Your task to perform on an android device: Go to battery settings Image 0: 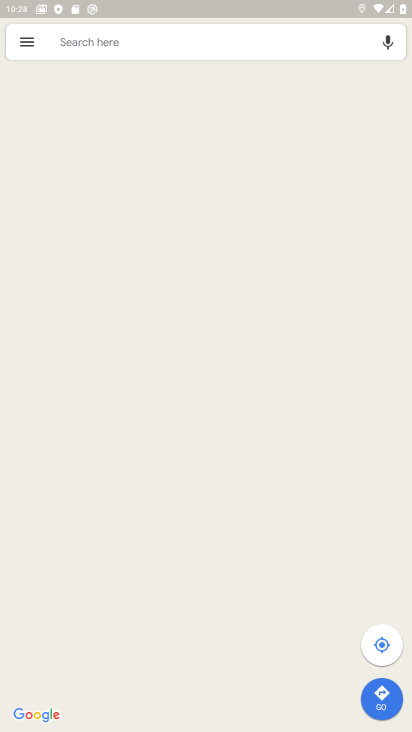
Step 0: press home button
Your task to perform on an android device: Go to battery settings Image 1: 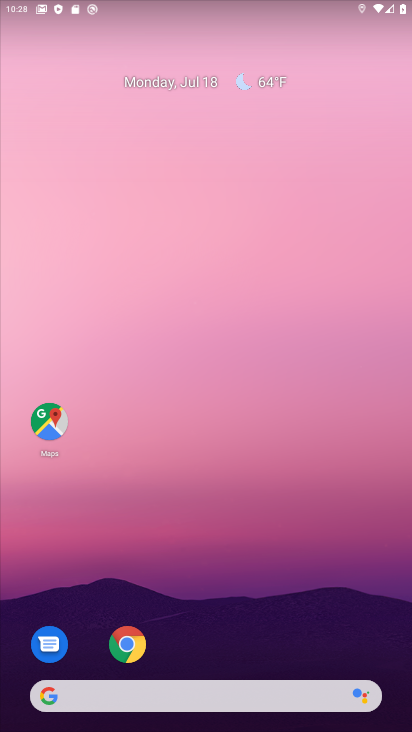
Step 1: drag from (263, 611) to (221, 82)
Your task to perform on an android device: Go to battery settings Image 2: 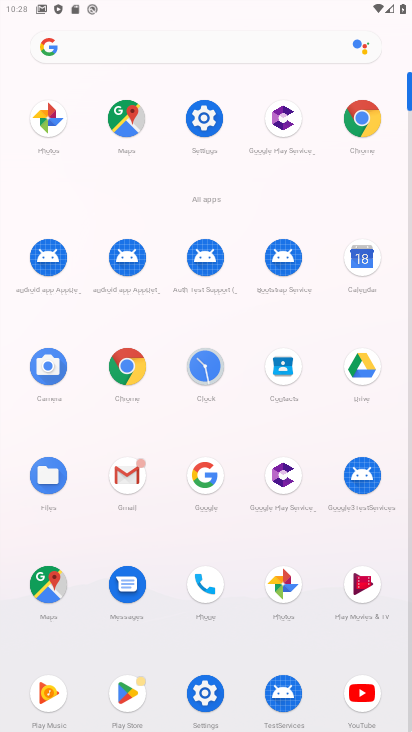
Step 2: click (199, 135)
Your task to perform on an android device: Go to battery settings Image 3: 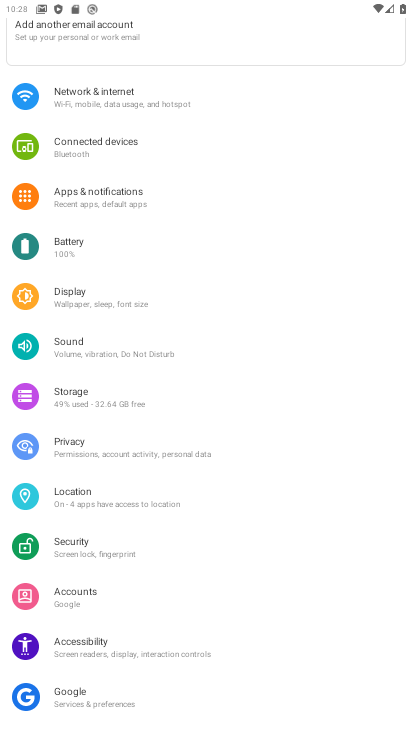
Step 3: click (67, 252)
Your task to perform on an android device: Go to battery settings Image 4: 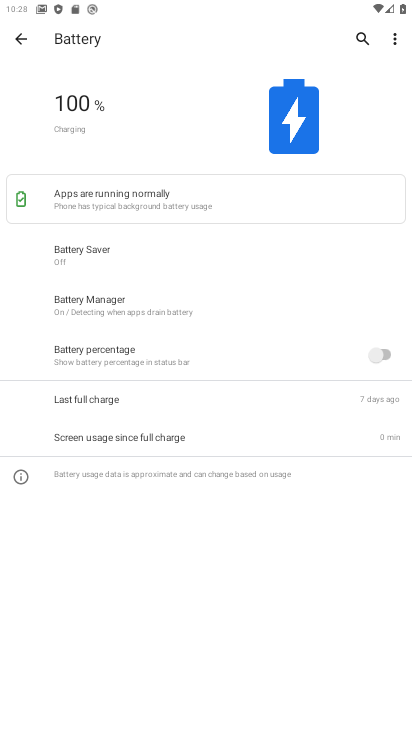
Step 4: task complete